Your task to perform on an android device: Open eBay Image 0: 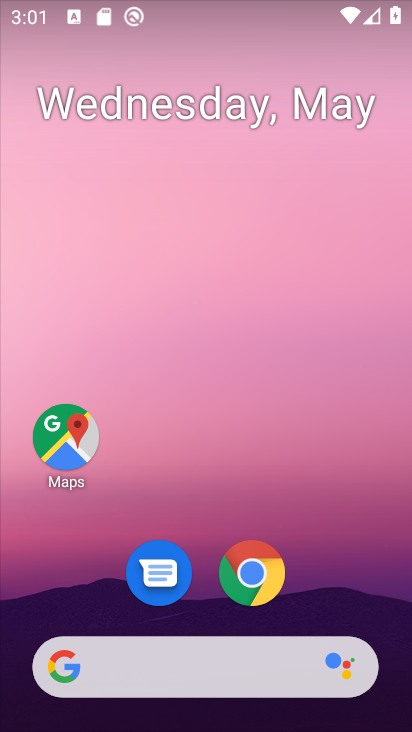
Step 0: click (175, 352)
Your task to perform on an android device: Open eBay Image 1: 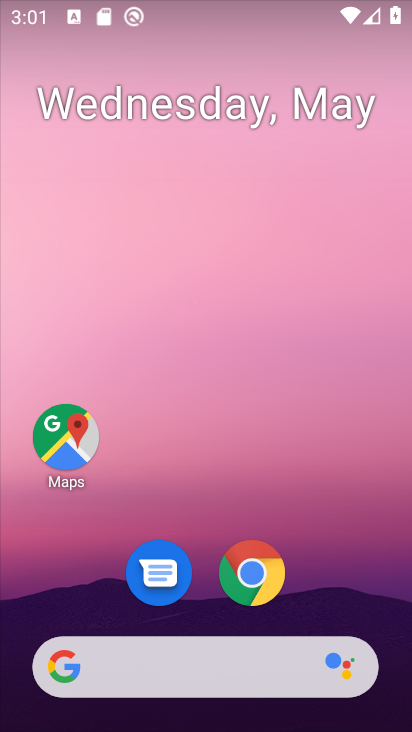
Step 1: click (237, 589)
Your task to perform on an android device: Open eBay Image 2: 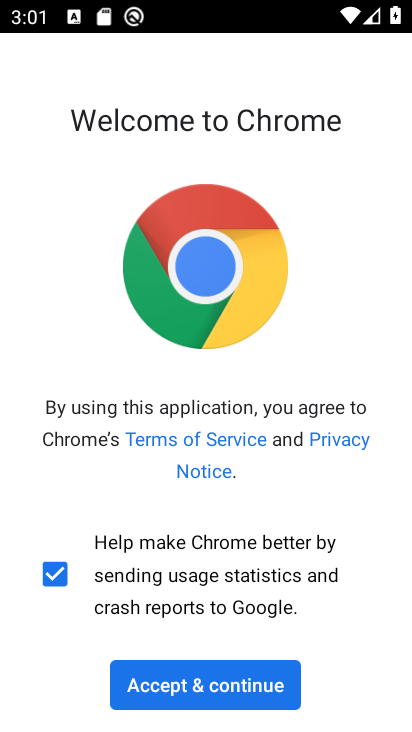
Step 2: click (184, 673)
Your task to perform on an android device: Open eBay Image 3: 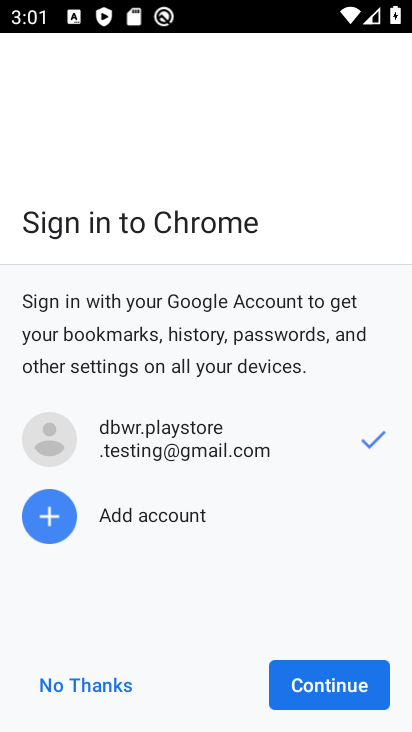
Step 3: click (300, 696)
Your task to perform on an android device: Open eBay Image 4: 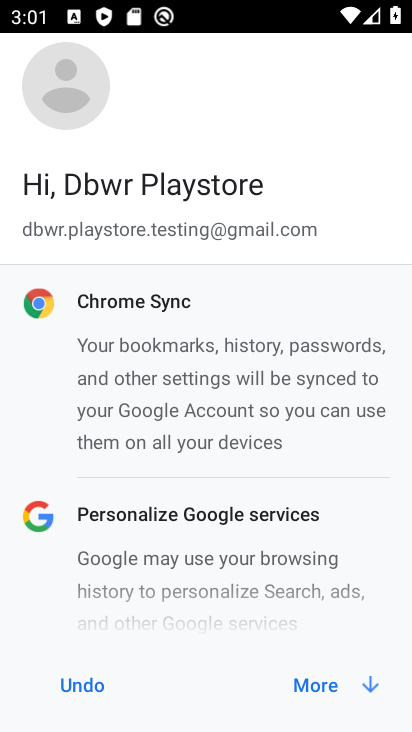
Step 4: click (301, 682)
Your task to perform on an android device: Open eBay Image 5: 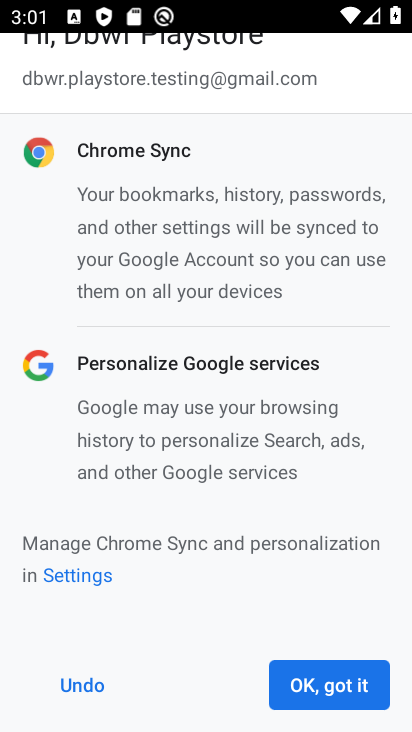
Step 5: click (301, 682)
Your task to perform on an android device: Open eBay Image 6: 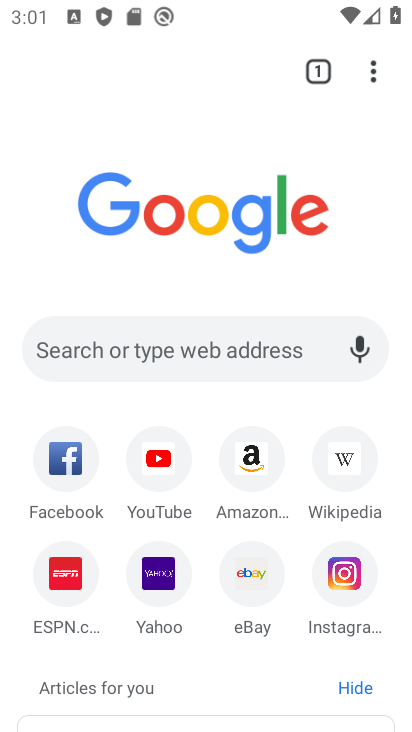
Step 6: click (245, 598)
Your task to perform on an android device: Open eBay Image 7: 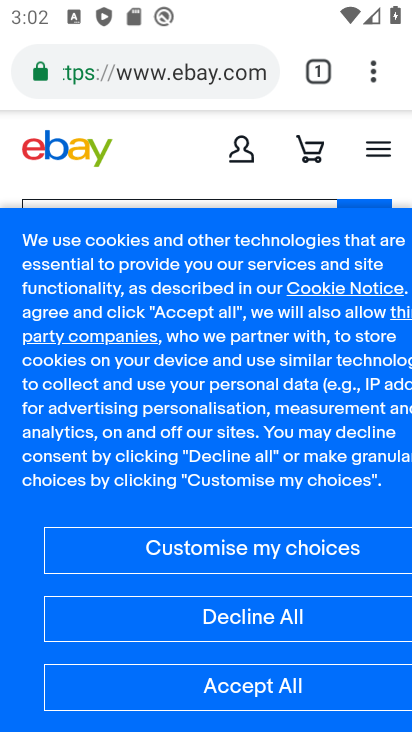
Step 7: task complete